Your task to perform on an android device: Open Chrome and go to the settings page Image 0: 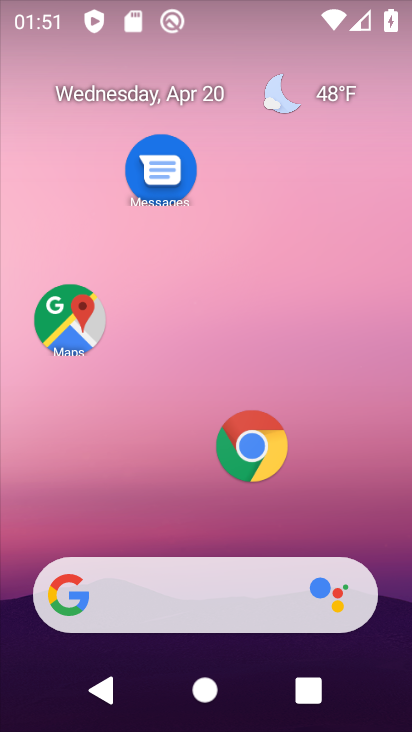
Step 0: drag from (208, 537) to (187, 91)
Your task to perform on an android device: Open Chrome and go to the settings page Image 1: 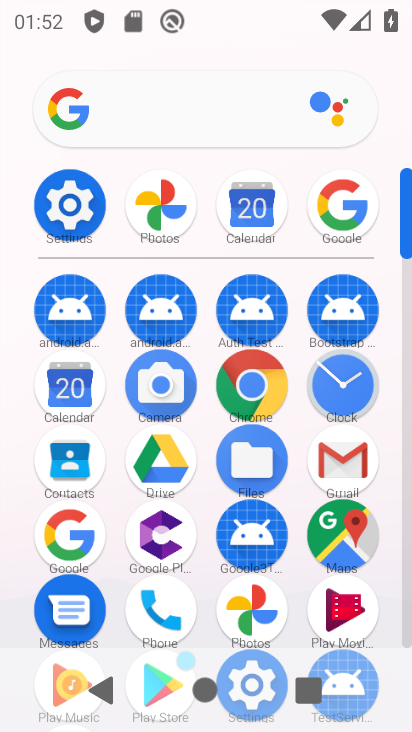
Step 1: drag from (203, 570) to (213, 191)
Your task to perform on an android device: Open Chrome and go to the settings page Image 2: 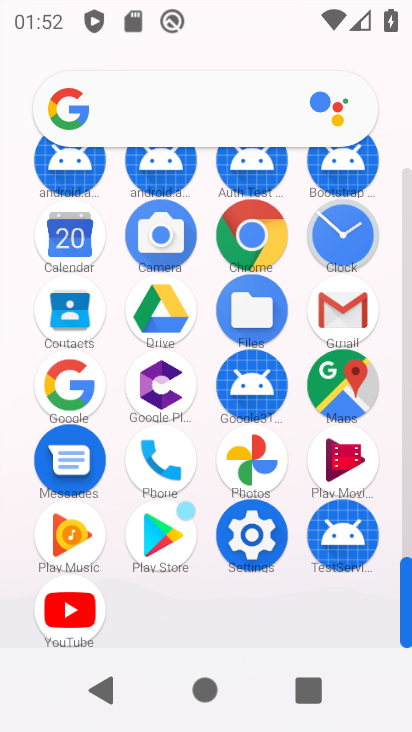
Step 2: click (235, 527)
Your task to perform on an android device: Open Chrome and go to the settings page Image 3: 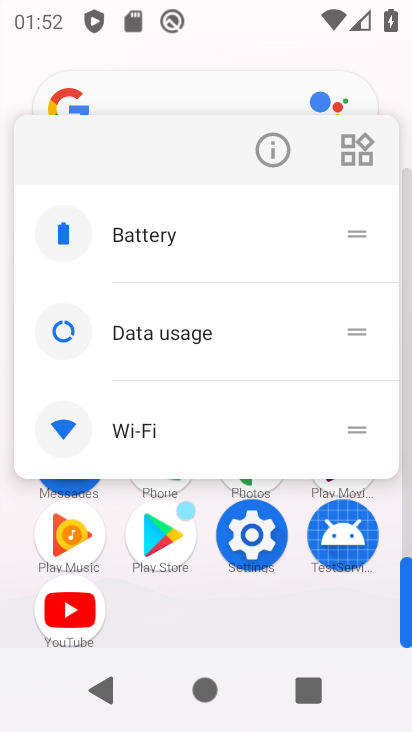
Step 3: click (297, 611)
Your task to perform on an android device: Open Chrome and go to the settings page Image 4: 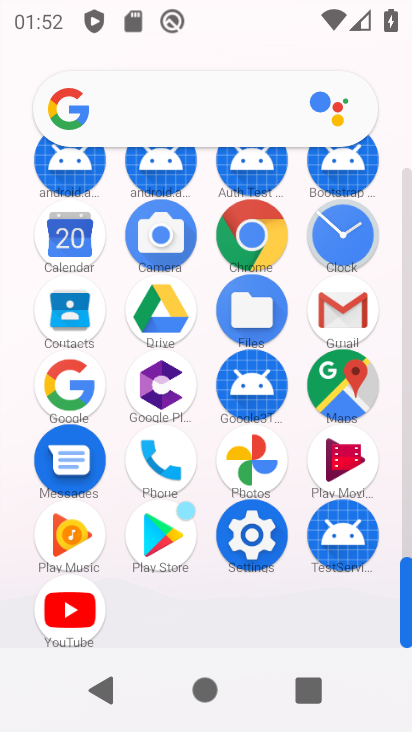
Step 4: click (247, 228)
Your task to perform on an android device: Open Chrome and go to the settings page Image 5: 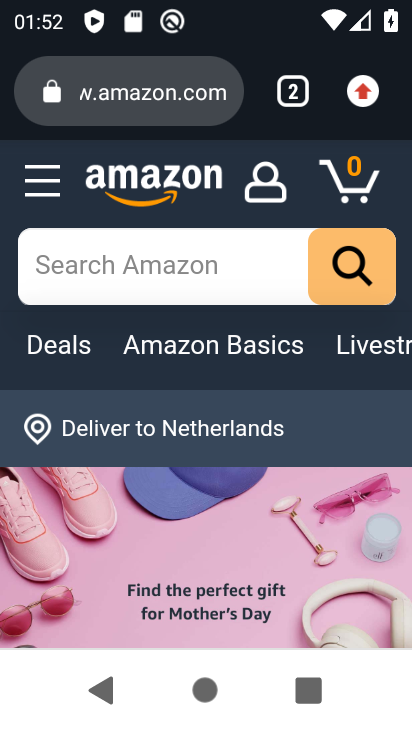
Step 5: click (360, 85)
Your task to perform on an android device: Open Chrome and go to the settings page Image 6: 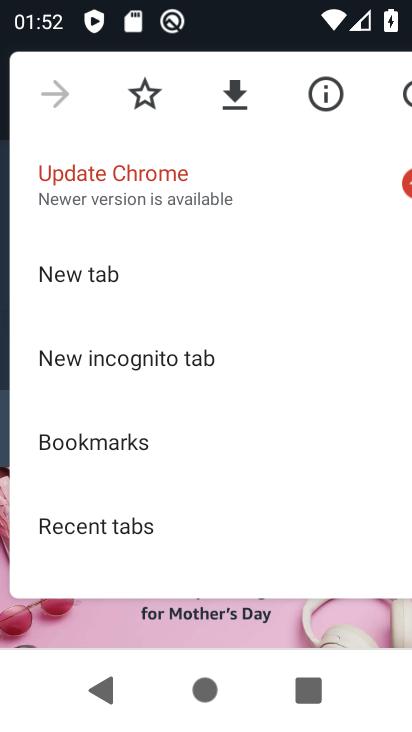
Step 6: drag from (190, 537) to (222, 125)
Your task to perform on an android device: Open Chrome and go to the settings page Image 7: 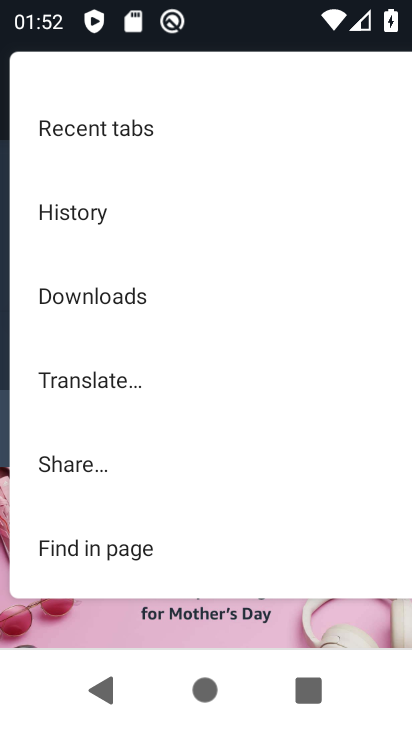
Step 7: drag from (198, 492) to (216, 135)
Your task to perform on an android device: Open Chrome and go to the settings page Image 8: 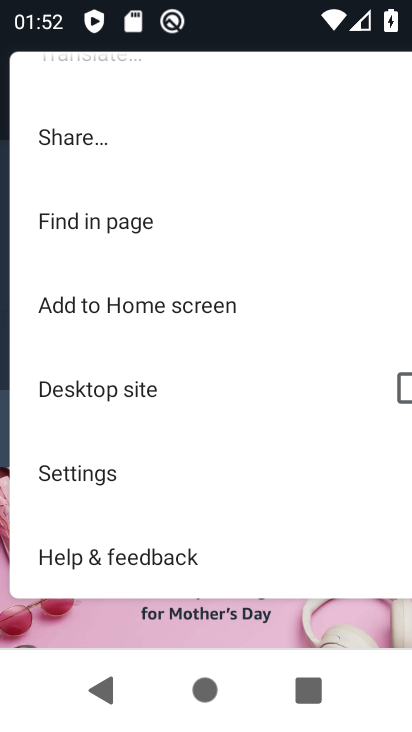
Step 8: click (133, 471)
Your task to perform on an android device: Open Chrome and go to the settings page Image 9: 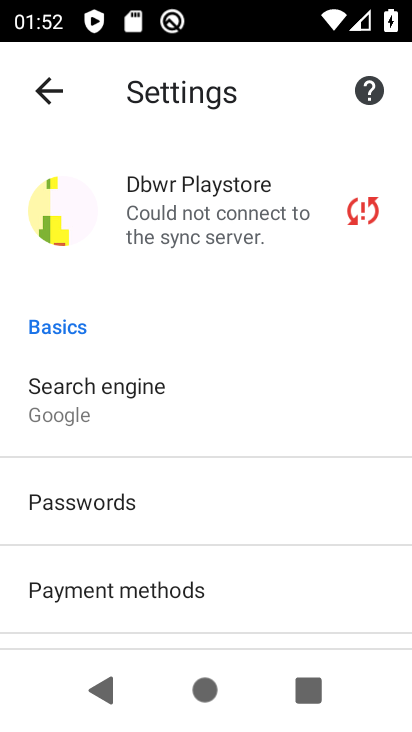
Step 9: task complete